Your task to perform on an android device: Toggle the flashlight Image 0: 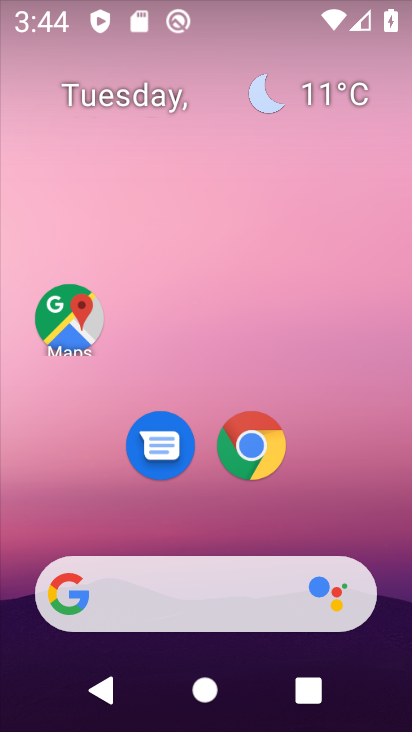
Step 0: drag from (349, 14) to (253, 579)
Your task to perform on an android device: Toggle the flashlight Image 1: 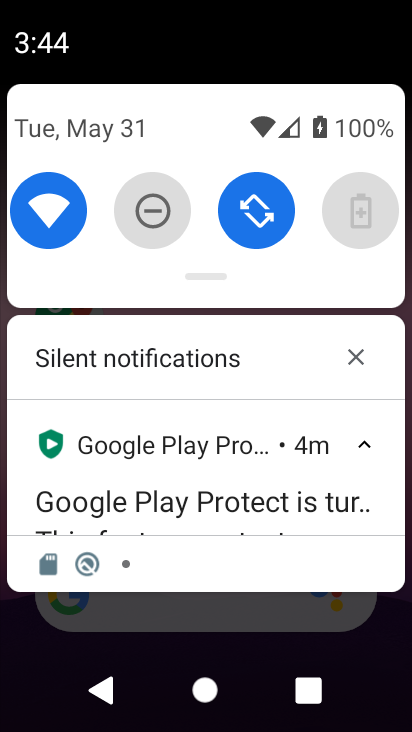
Step 1: task complete